Your task to perform on an android device: Open Amazon Image 0: 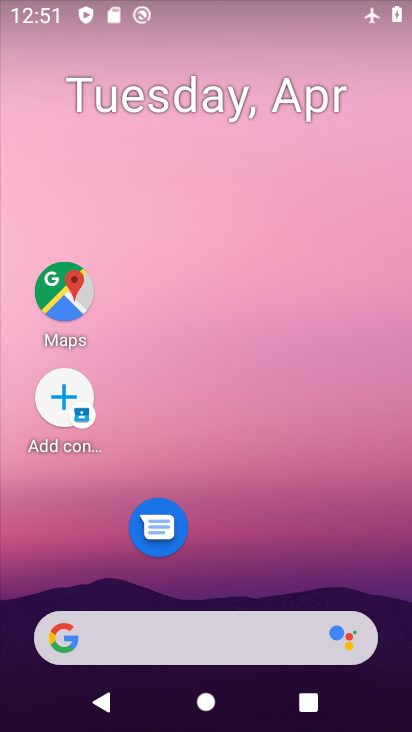
Step 0: drag from (256, 583) to (317, 143)
Your task to perform on an android device: Open Amazon Image 1: 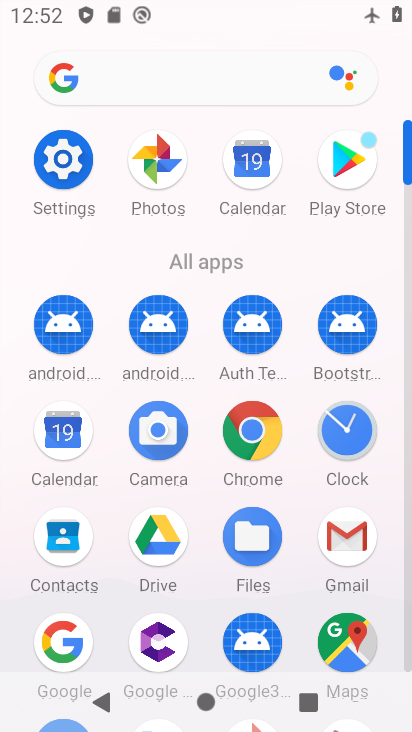
Step 1: click (249, 433)
Your task to perform on an android device: Open Amazon Image 2: 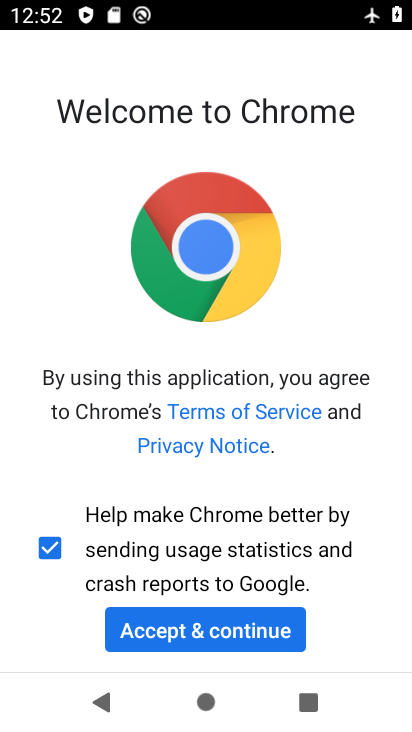
Step 2: click (195, 626)
Your task to perform on an android device: Open Amazon Image 3: 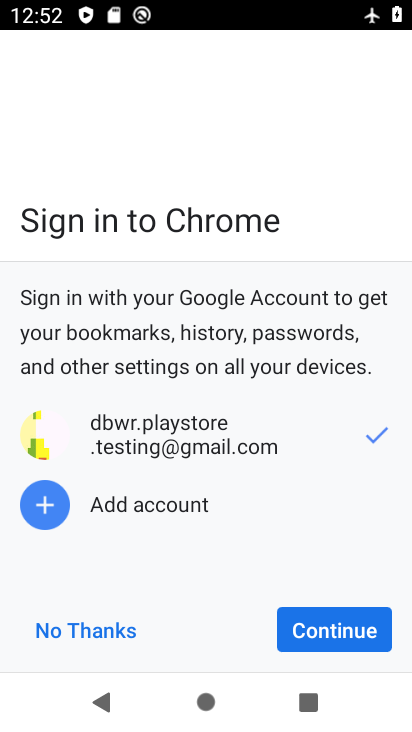
Step 3: click (365, 641)
Your task to perform on an android device: Open Amazon Image 4: 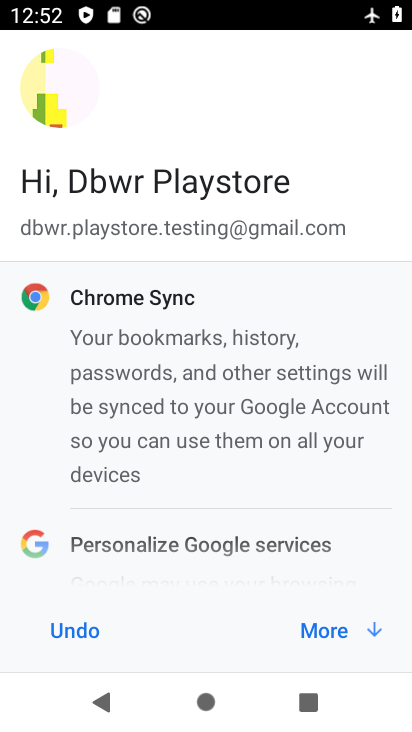
Step 4: click (323, 627)
Your task to perform on an android device: Open Amazon Image 5: 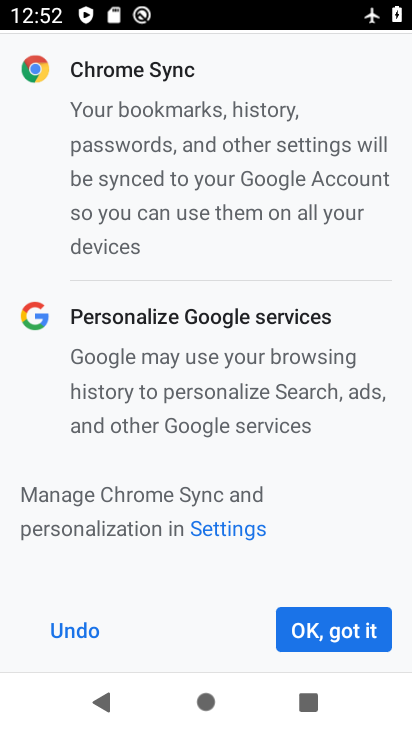
Step 5: click (323, 627)
Your task to perform on an android device: Open Amazon Image 6: 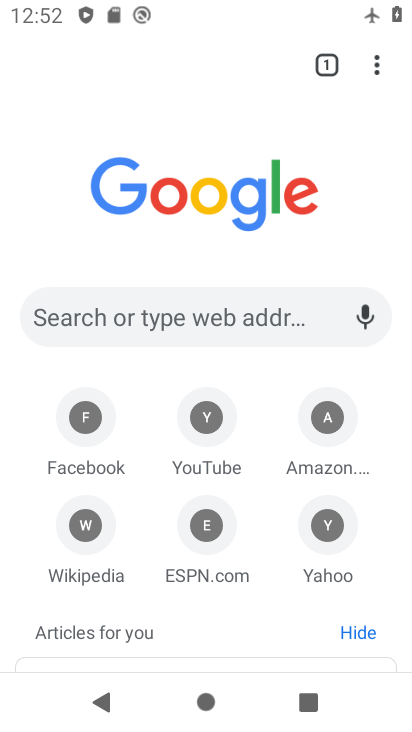
Step 6: click (332, 419)
Your task to perform on an android device: Open Amazon Image 7: 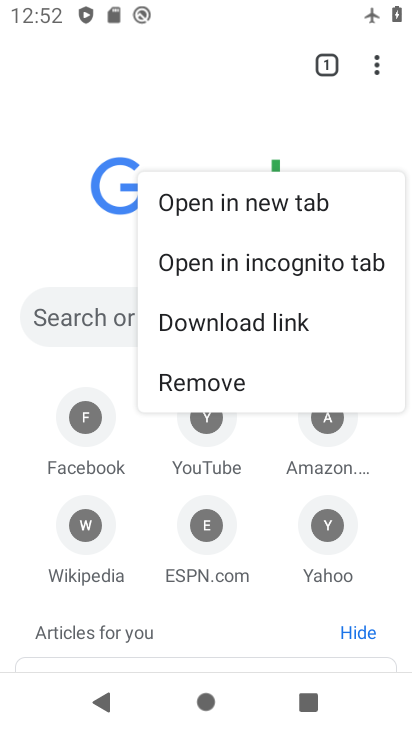
Step 7: click (332, 419)
Your task to perform on an android device: Open Amazon Image 8: 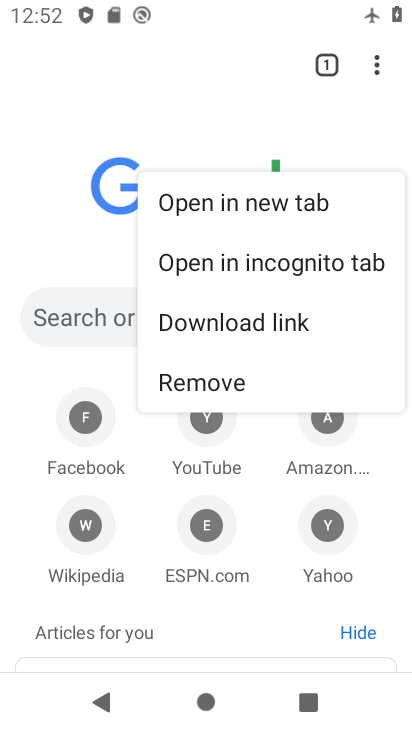
Step 8: click (334, 431)
Your task to perform on an android device: Open Amazon Image 9: 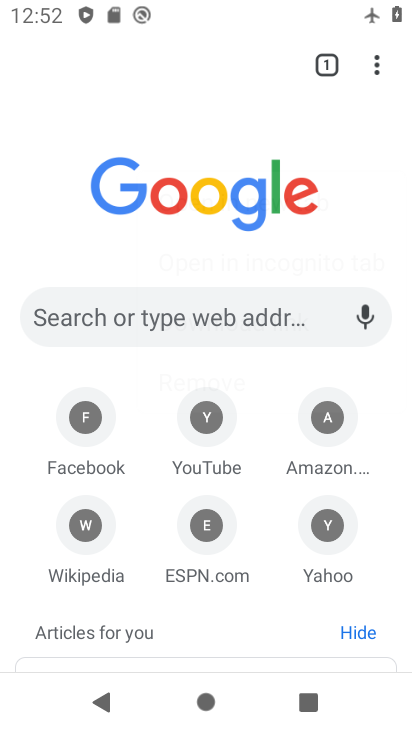
Step 9: click (334, 431)
Your task to perform on an android device: Open Amazon Image 10: 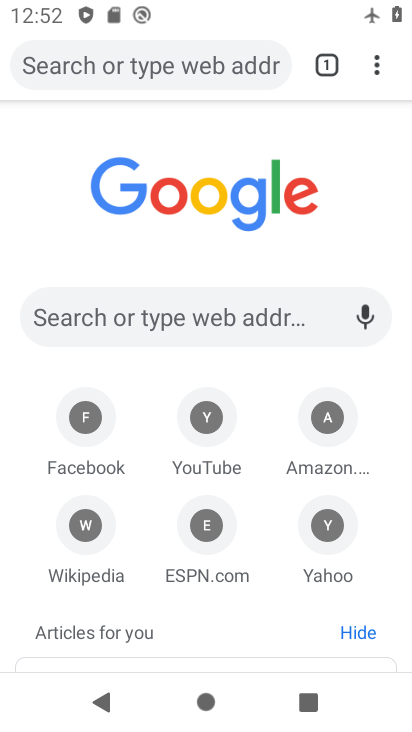
Step 10: click (334, 431)
Your task to perform on an android device: Open Amazon Image 11: 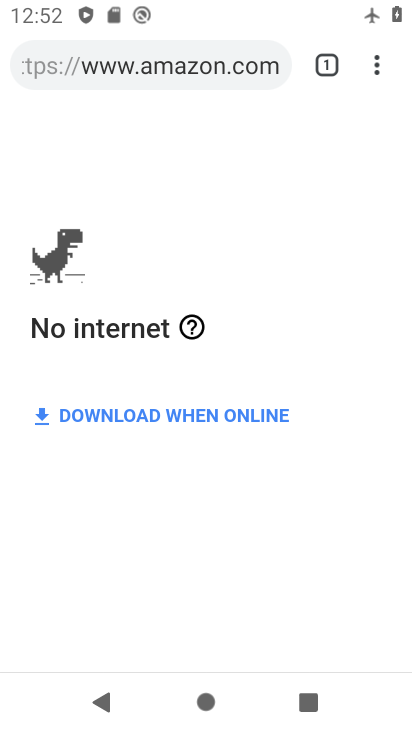
Step 11: task complete